Your task to perform on an android device: Search for vegetarian restaurants on Maps Image 0: 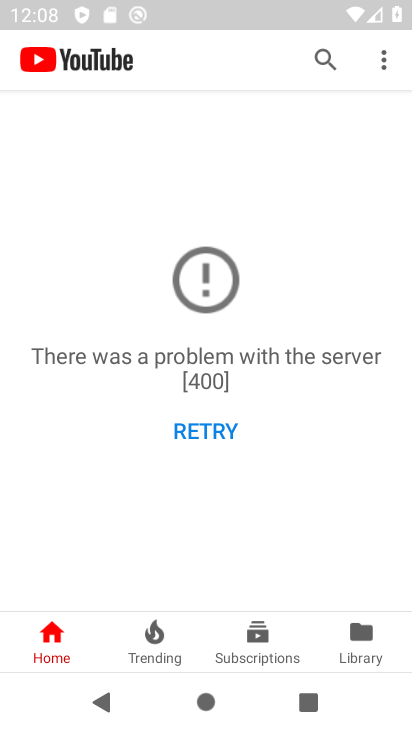
Step 0: press home button
Your task to perform on an android device: Search for vegetarian restaurants on Maps Image 1: 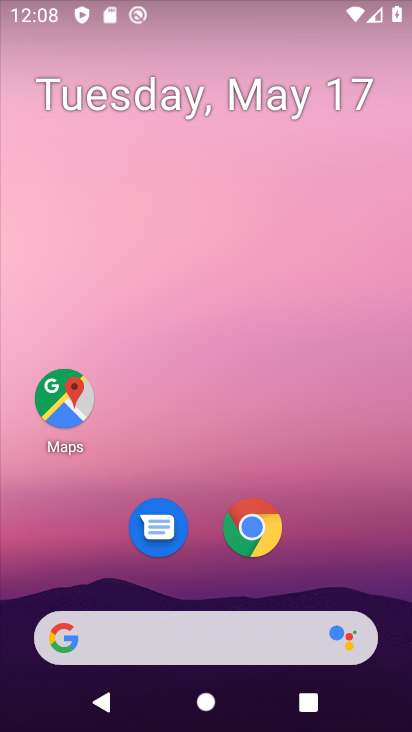
Step 1: drag from (352, 545) to (315, 157)
Your task to perform on an android device: Search for vegetarian restaurants on Maps Image 2: 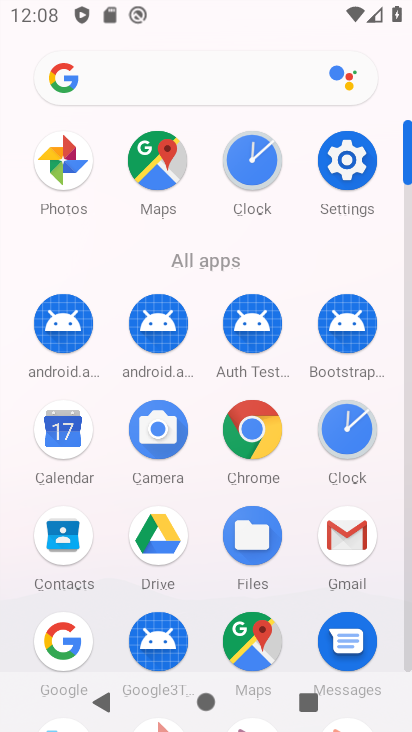
Step 2: click (164, 168)
Your task to perform on an android device: Search for vegetarian restaurants on Maps Image 3: 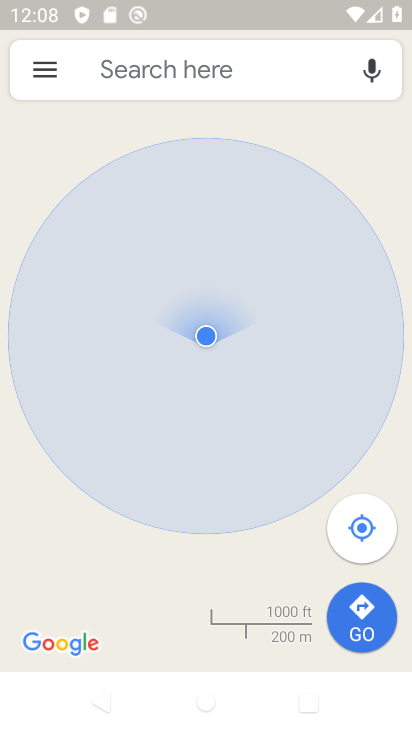
Step 3: click (177, 74)
Your task to perform on an android device: Search for vegetarian restaurants on Maps Image 4: 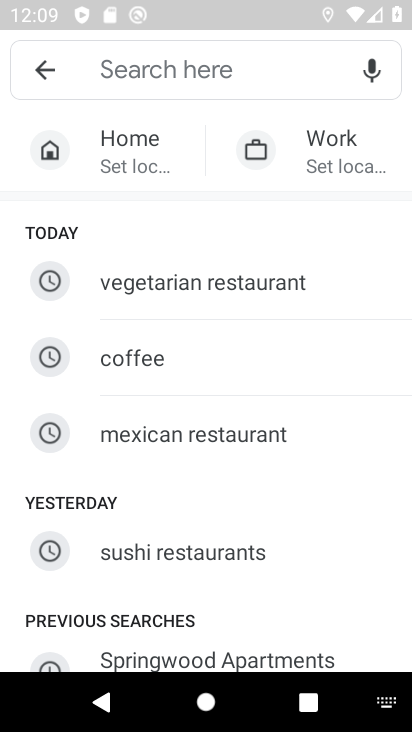
Step 4: type "vegetarian restaurants"
Your task to perform on an android device: Search for vegetarian restaurants on Maps Image 5: 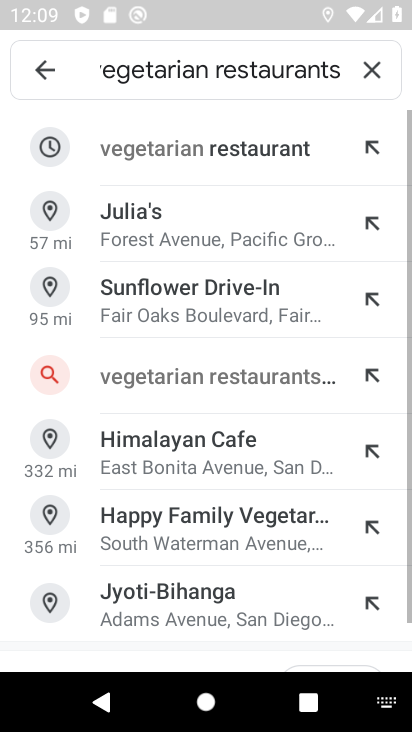
Step 5: click (143, 144)
Your task to perform on an android device: Search for vegetarian restaurants on Maps Image 6: 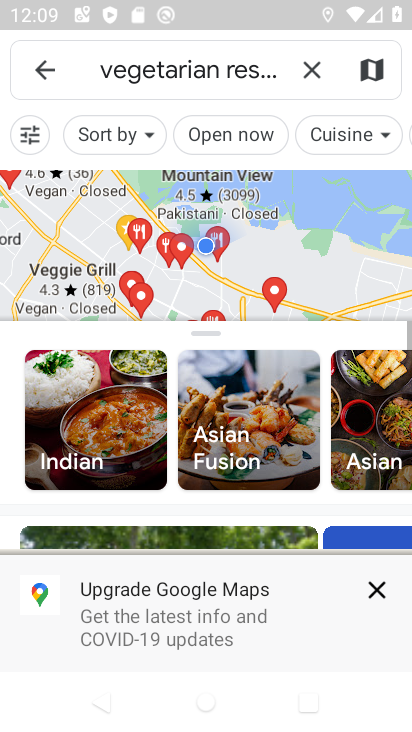
Step 6: task complete